Your task to perform on an android device: turn pop-ups off in chrome Image 0: 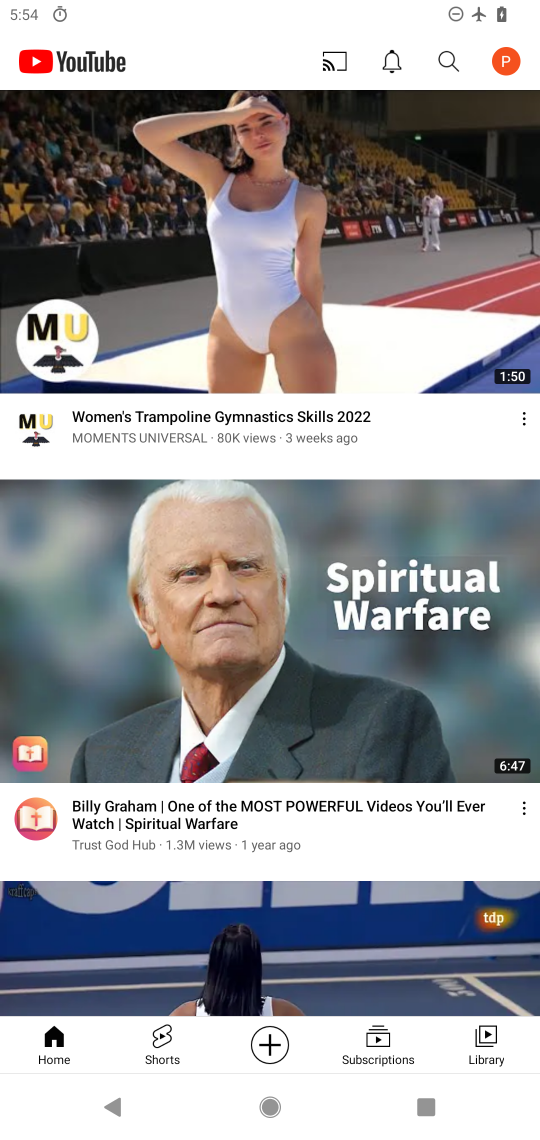
Step 0: press home button
Your task to perform on an android device: turn pop-ups off in chrome Image 1: 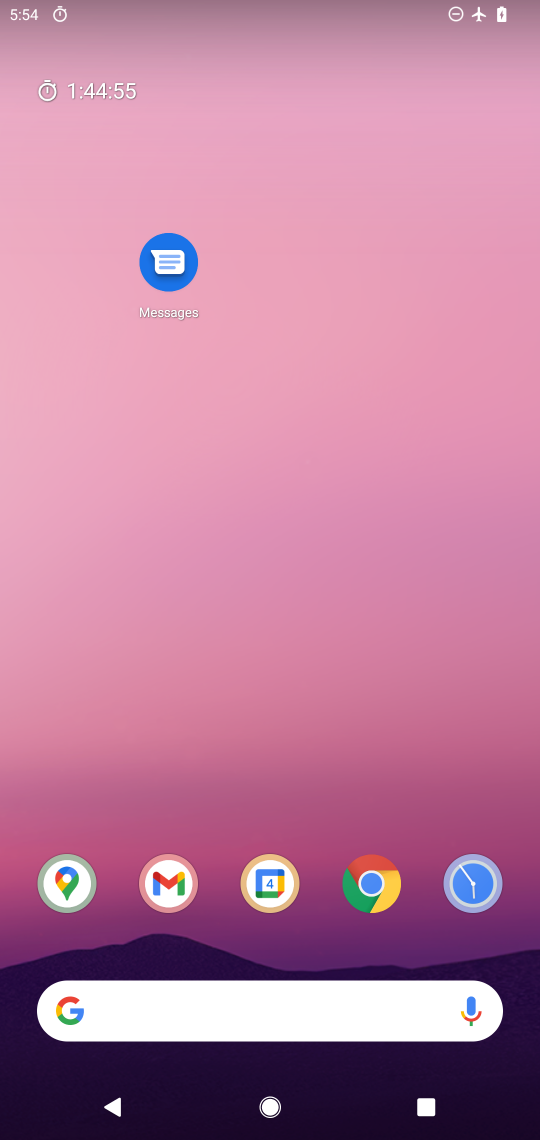
Step 1: click (376, 888)
Your task to perform on an android device: turn pop-ups off in chrome Image 2: 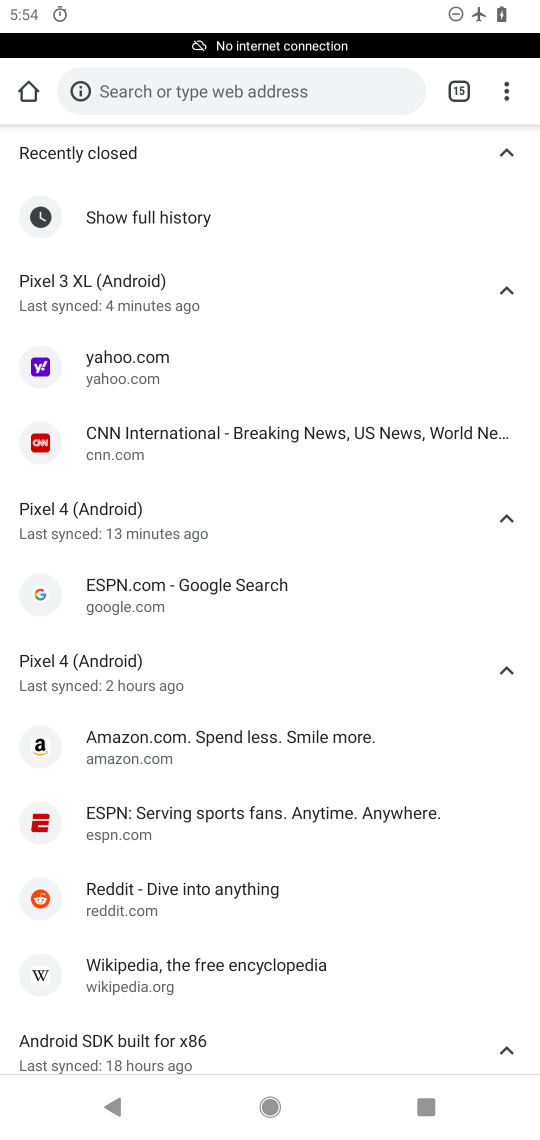
Step 2: click (504, 101)
Your task to perform on an android device: turn pop-ups off in chrome Image 3: 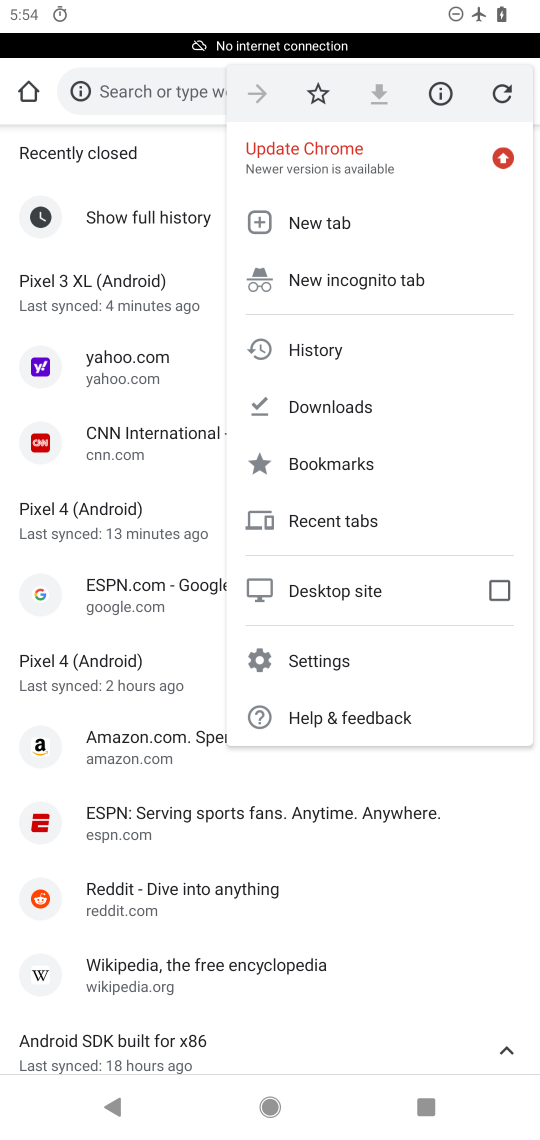
Step 3: click (319, 658)
Your task to perform on an android device: turn pop-ups off in chrome Image 4: 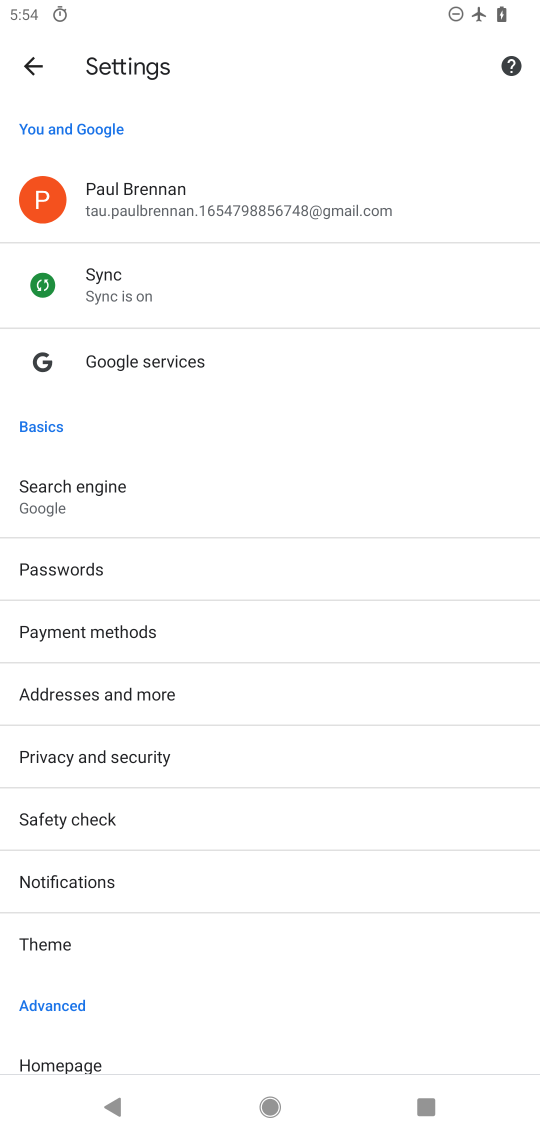
Step 4: drag from (151, 1021) to (129, 549)
Your task to perform on an android device: turn pop-ups off in chrome Image 5: 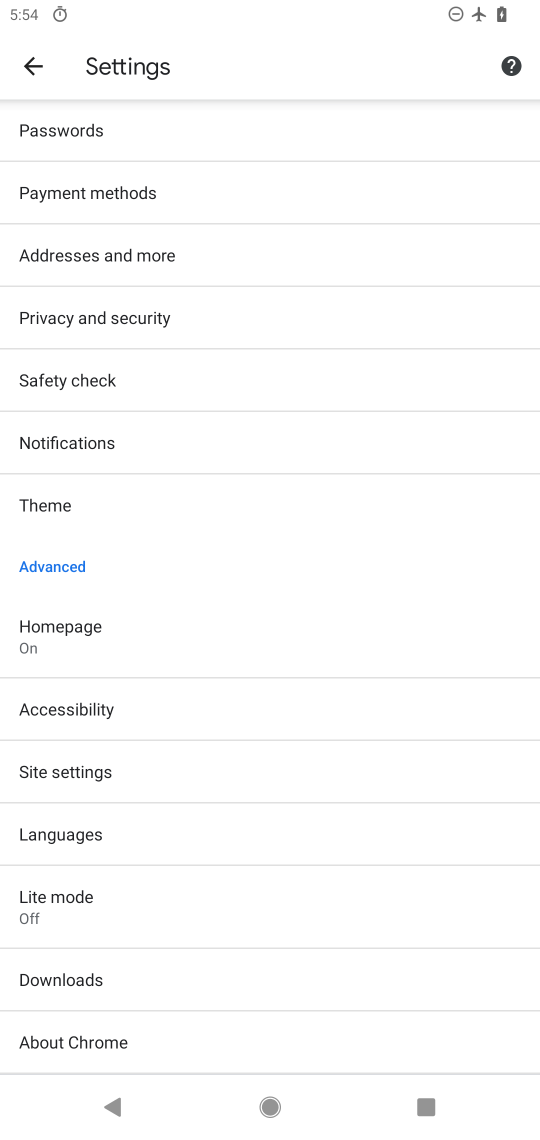
Step 5: click (65, 770)
Your task to perform on an android device: turn pop-ups off in chrome Image 6: 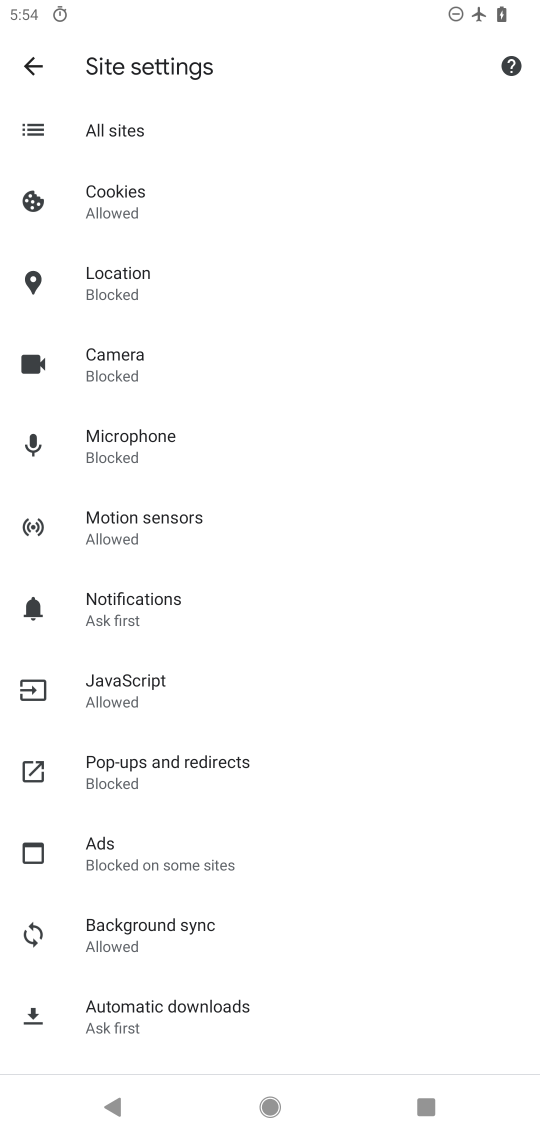
Step 6: click (140, 771)
Your task to perform on an android device: turn pop-ups off in chrome Image 7: 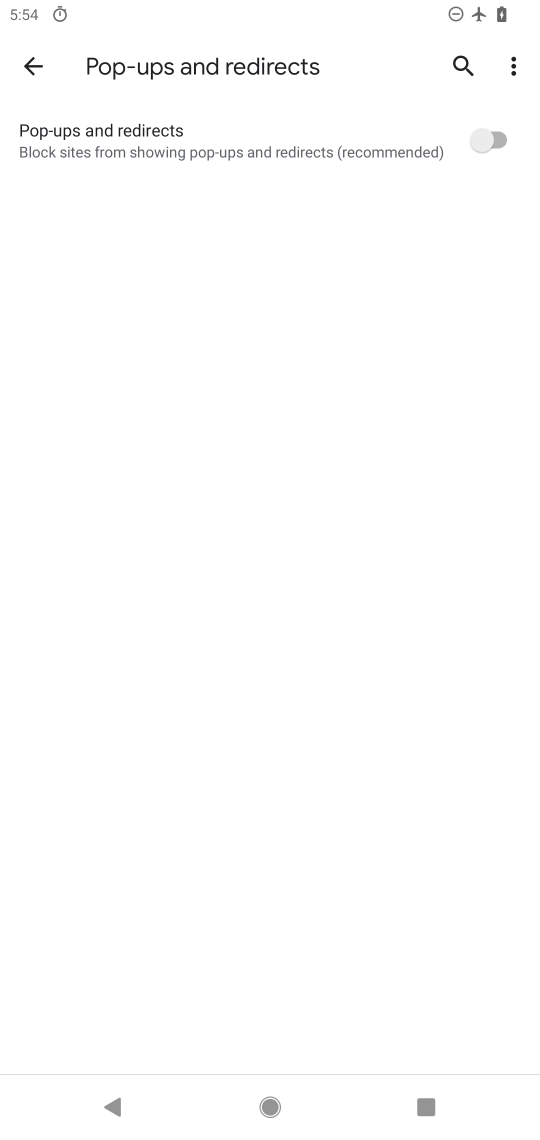
Step 7: task complete